Your task to perform on an android device: turn off data saver in the chrome app Image 0: 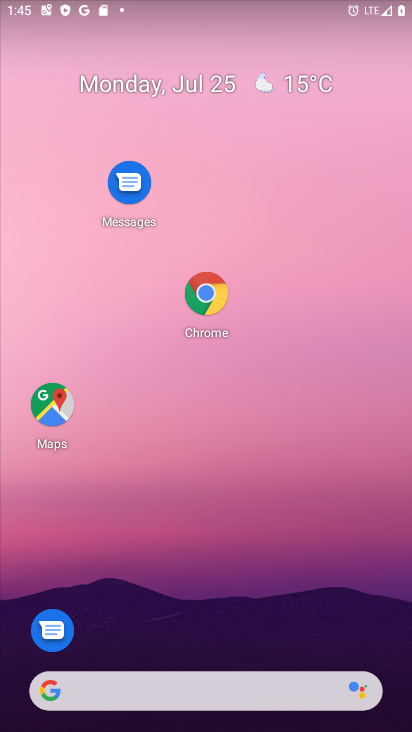
Step 0: click (198, 301)
Your task to perform on an android device: turn off data saver in the chrome app Image 1: 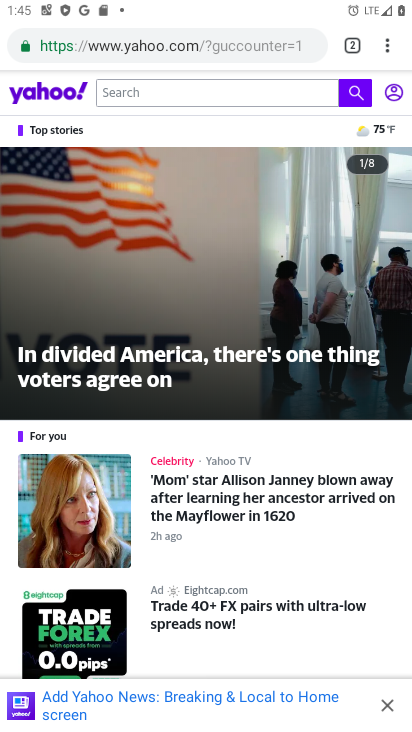
Step 1: drag from (383, 44) to (216, 577)
Your task to perform on an android device: turn off data saver in the chrome app Image 2: 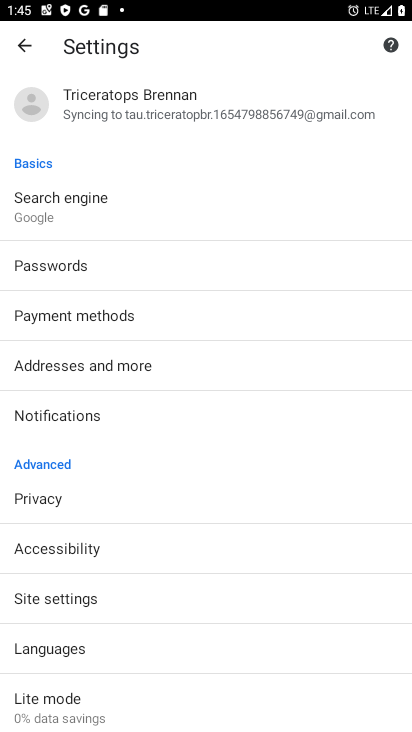
Step 2: drag from (101, 631) to (129, 393)
Your task to perform on an android device: turn off data saver in the chrome app Image 3: 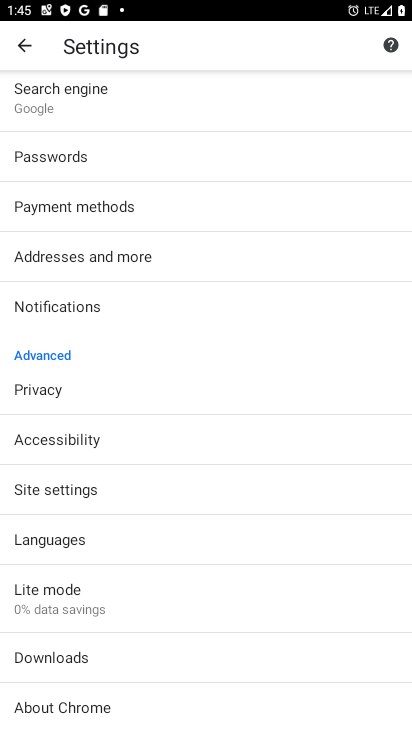
Step 3: click (37, 598)
Your task to perform on an android device: turn off data saver in the chrome app Image 4: 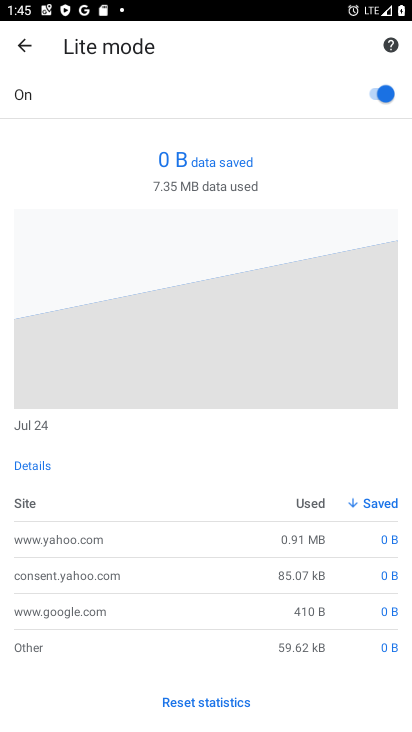
Step 4: click (324, 109)
Your task to perform on an android device: turn off data saver in the chrome app Image 5: 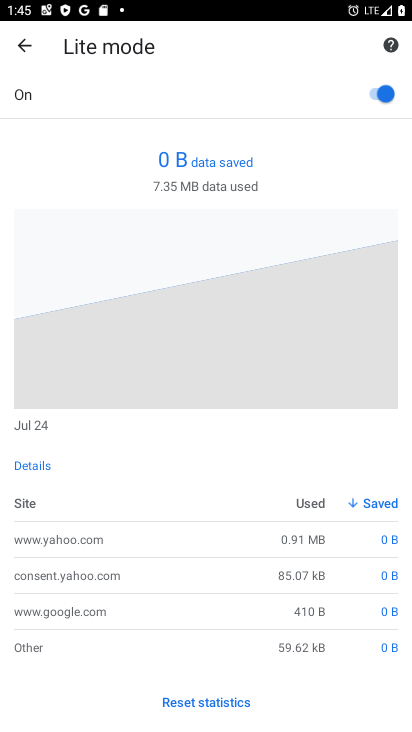
Step 5: click (339, 83)
Your task to perform on an android device: turn off data saver in the chrome app Image 6: 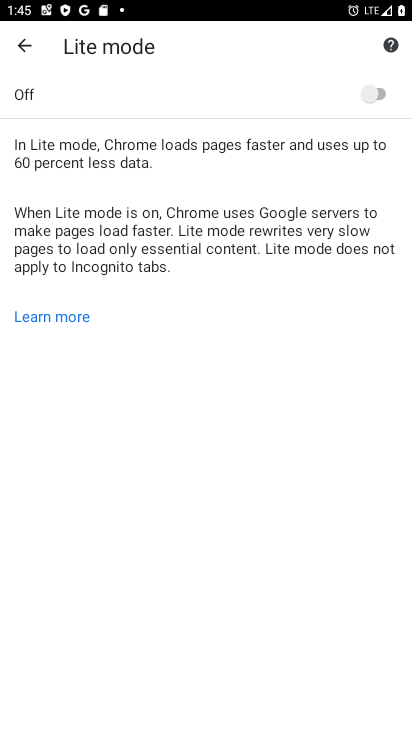
Step 6: task complete